Your task to perform on an android device: see tabs open on other devices in the chrome app Image 0: 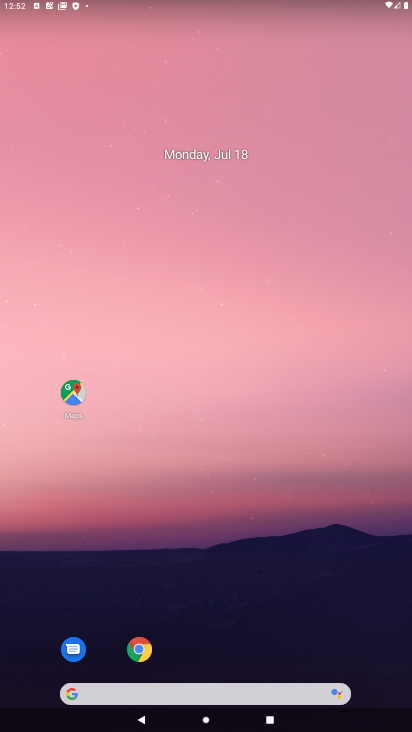
Step 0: click (139, 651)
Your task to perform on an android device: see tabs open on other devices in the chrome app Image 1: 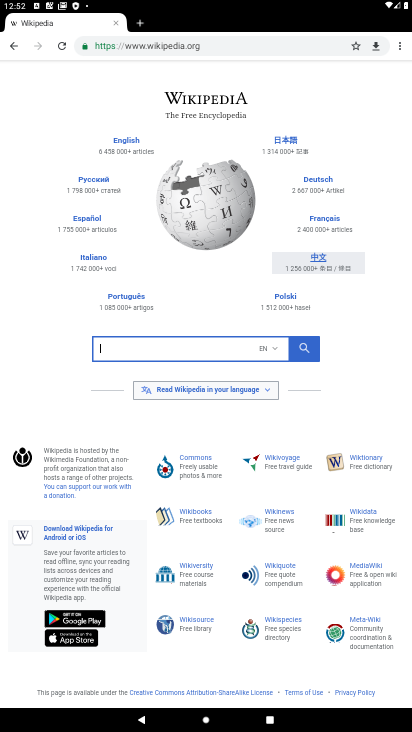
Step 1: click (400, 47)
Your task to perform on an android device: see tabs open on other devices in the chrome app Image 2: 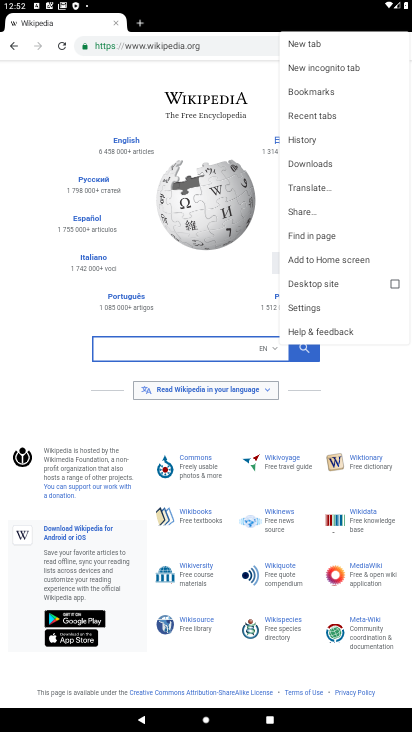
Step 2: click (306, 113)
Your task to perform on an android device: see tabs open on other devices in the chrome app Image 3: 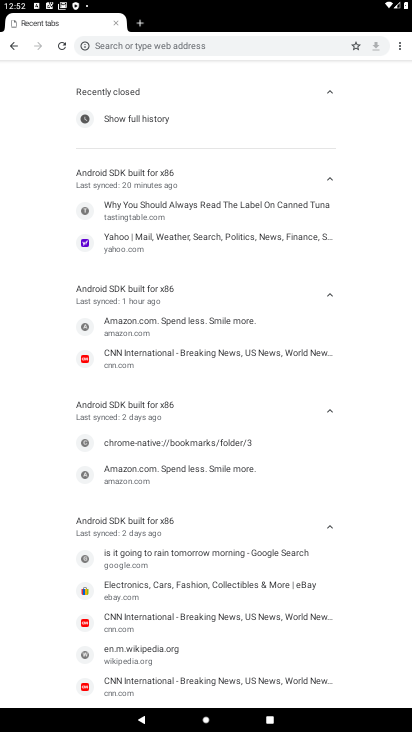
Step 3: task complete